Your task to perform on an android device: Is it going to rain today? Image 0: 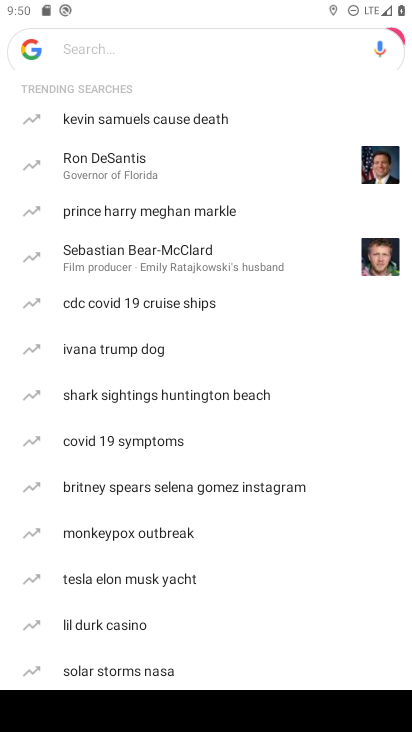
Step 0: press home button
Your task to perform on an android device: Is it going to rain today? Image 1: 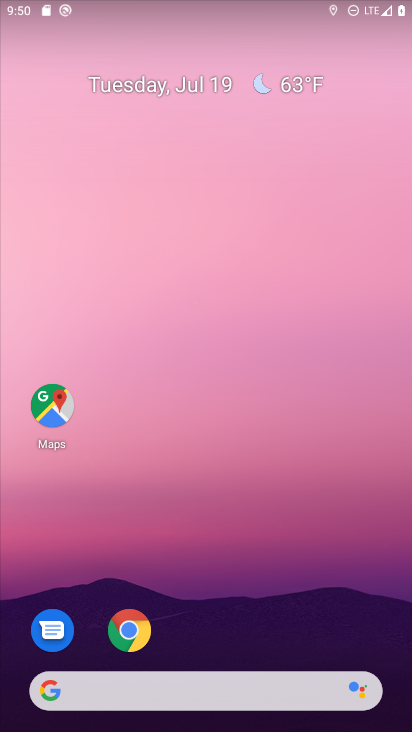
Step 1: drag from (238, 694) to (282, 206)
Your task to perform on an android device: Is it going to rain today? Image 2: 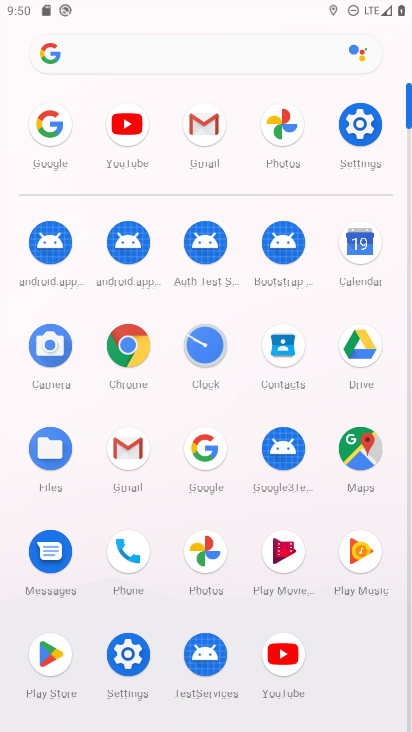
Step 2: click (203, 448)
Your task to perform on an android device: Is it going to rain today? Image 3: 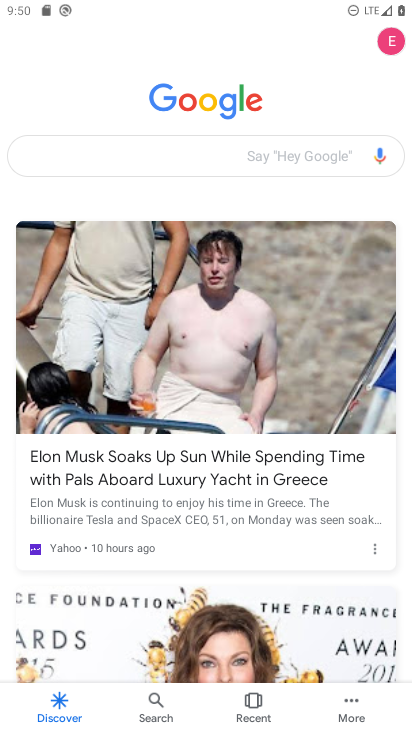
Step 3: click (196, 163)
Your task to perform on an android device: Is it going to rain today? Image 4: 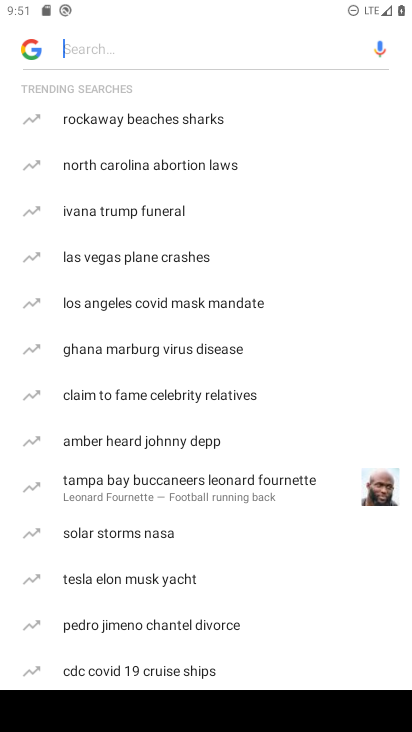
Step 4: type "Is it going to rain today?"
Your task to perform on an android device: Is it going to rain today? Image 5: 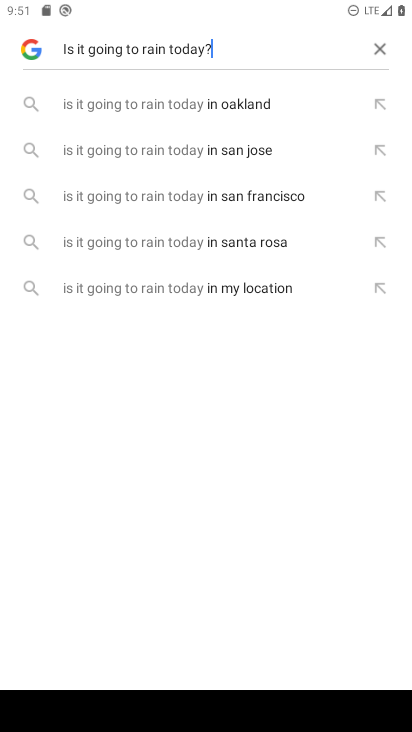
Step 5: click (83, 149)
Your task to perform on an android device: Is it going to rain today? Image 6: 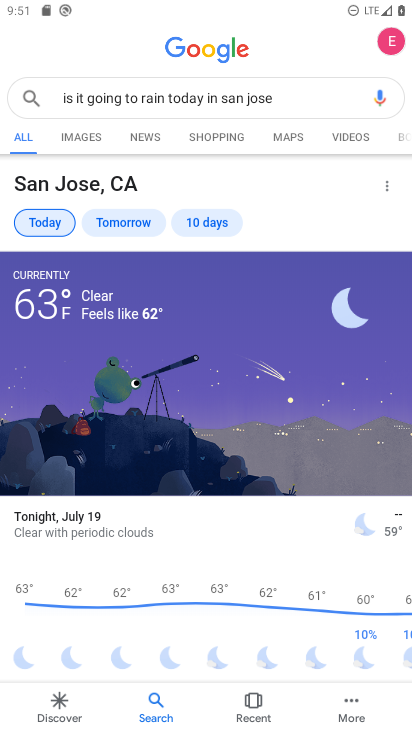
Step 6: task complete